Your task to perform on an android device: turn notification dots on Image 0: 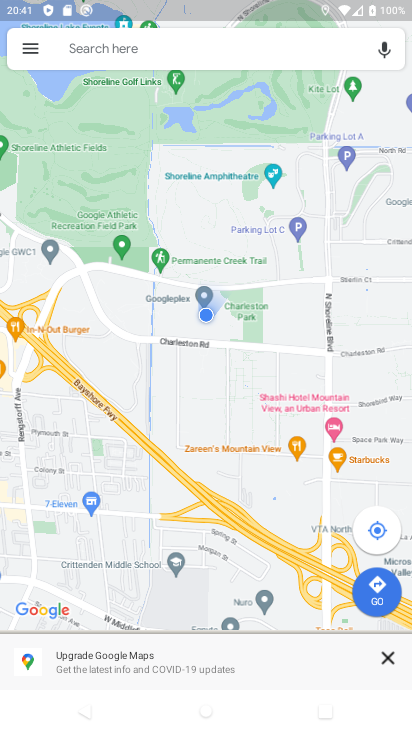
Step 0: press home button
Your task to perform on an android device: turn notification dots on Image 1: 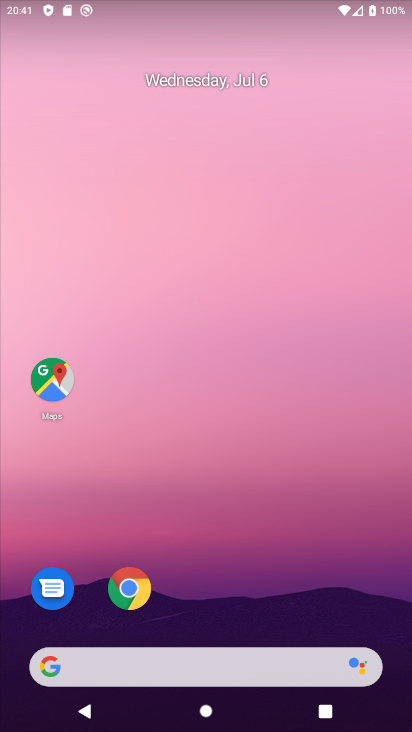
Step 1: drag from (252, 524) to (192, 124)
Your task to perform on an android device: turn notification dots on Image 2: 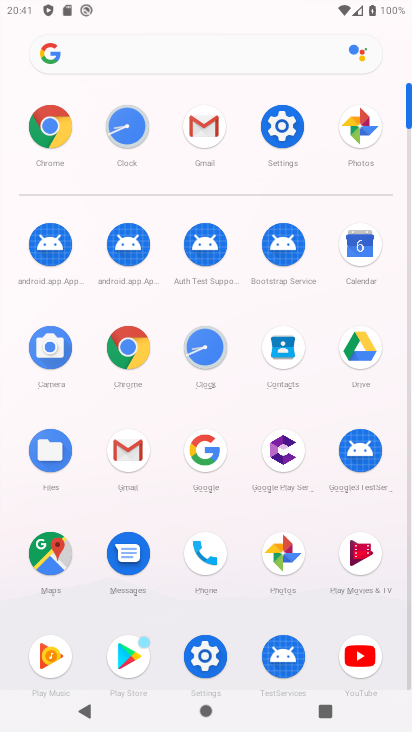
Step 2: click (281, 132)
Your task to perform on an android device: turn notification dots on Image 3: 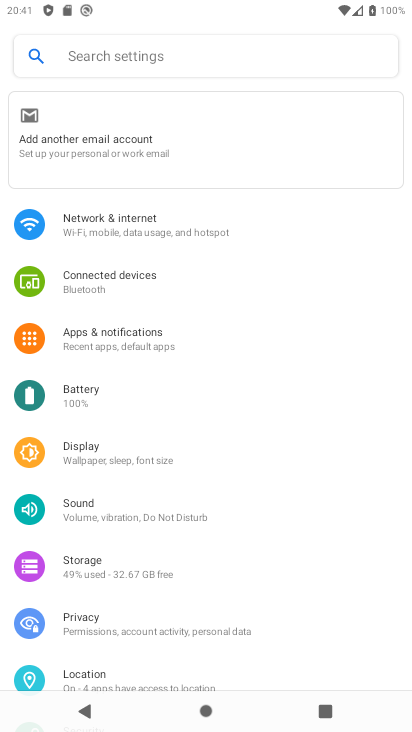
Step 3: click (110, 337)
Your task to perform on an android device: turn notification dots on Image 4: 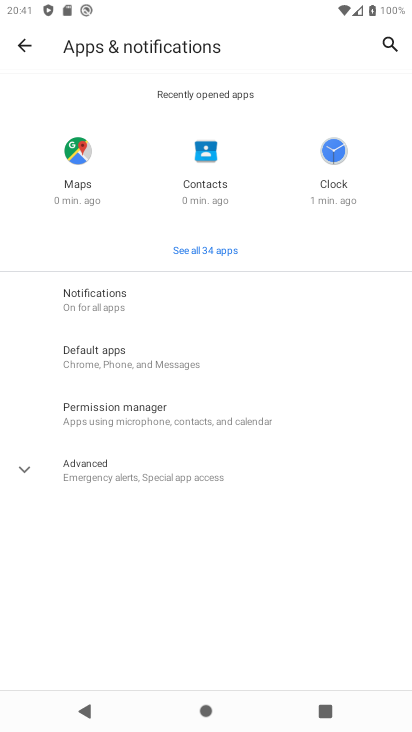
Step 4: click (95, 285)
Your task to perform on an android device: turn notification dots on Image 5: 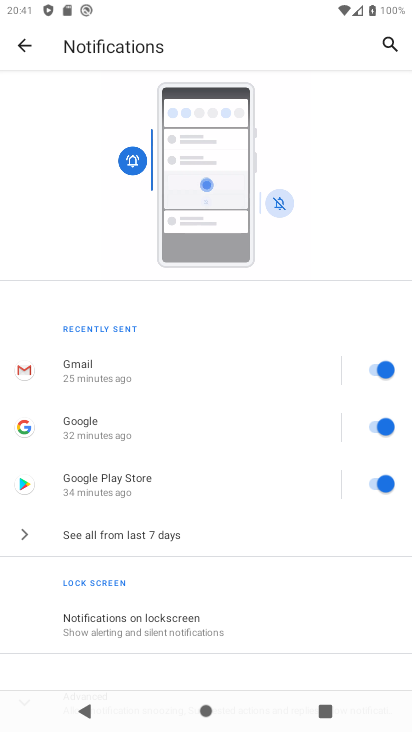
Step 5: drag from (271, 606) to (219, 341)
Your task to perform on an android device: turn notification dots on Image 6: 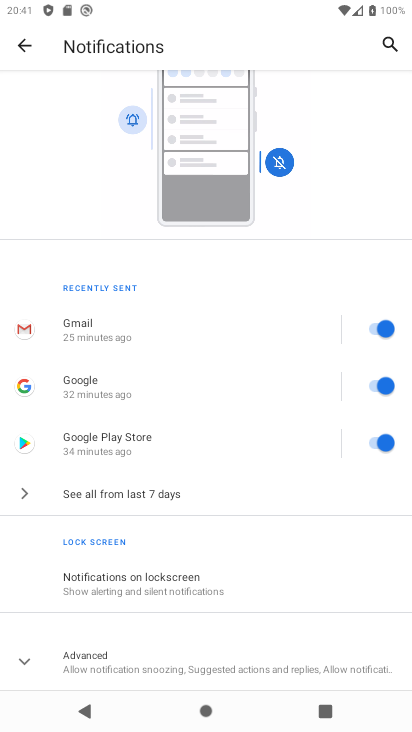
Step 6: click (59, 662)
Your task to perform on an android device: turn notification dots on Image 7: 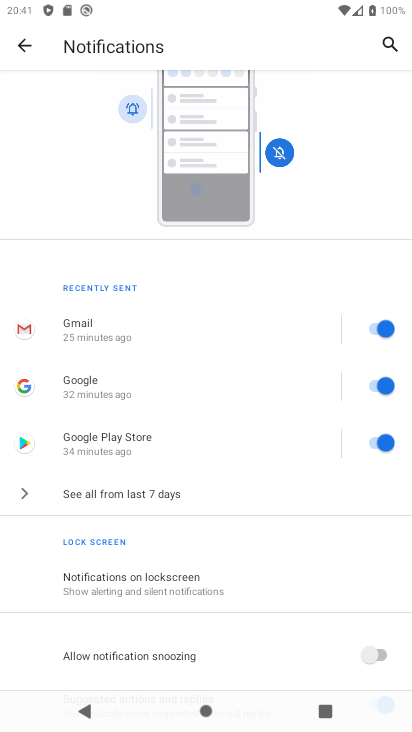
Step 7: task complete